Your task to perform on an android device: change text size in settings app Image 0: 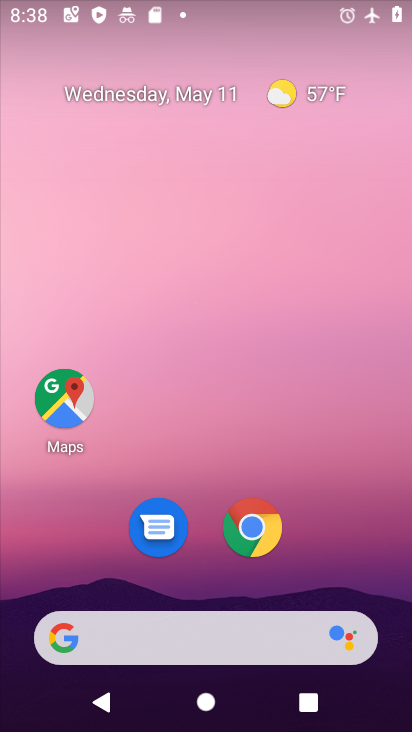
Step 0: drag from (348, 587) to (324, 25)
Your task to perform on an android device: change text size in settings app Image 1: 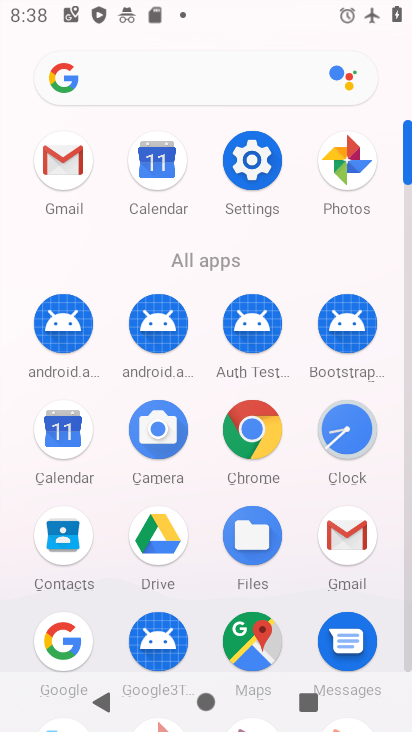
Step 1: click (260, 163)
Your task to perform on an android device: change text size in settings app Image 2: 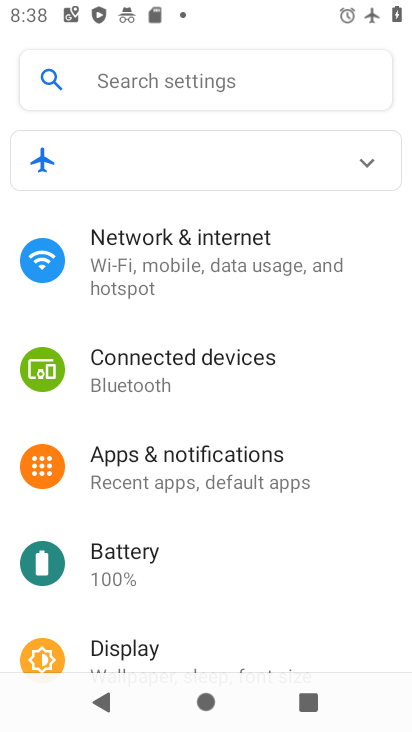
Step 2: drag from (248, 564) to (259, 219)
Your task to perform on an android device: change text size in settings app Image 3: 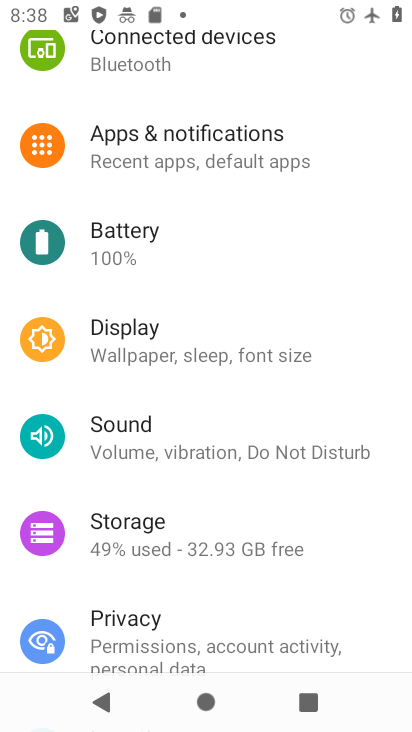
Step 3: click (122, 350)
Your task to perform on an android device: change text size in settings app Image 4: 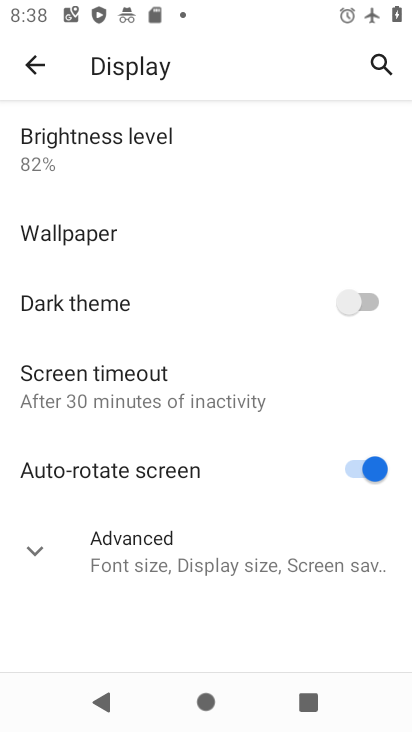
Step 4: click (22, 551)
Your task to perform on an android device: change text size in settings app Image 5: 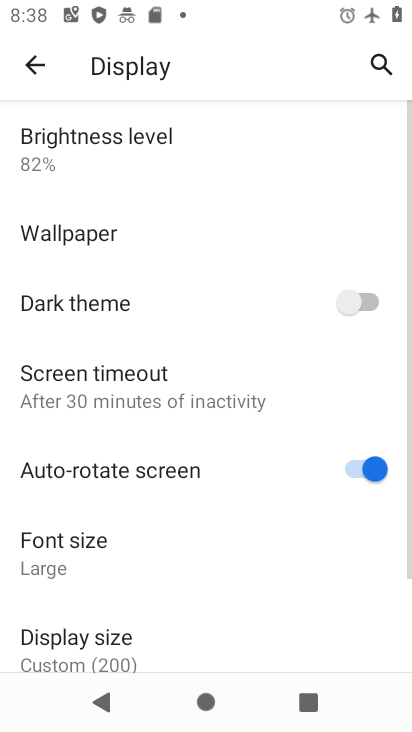
Step 5: click (59, 572)
Your task to perform on an android device: change text size in settings app Image 6: 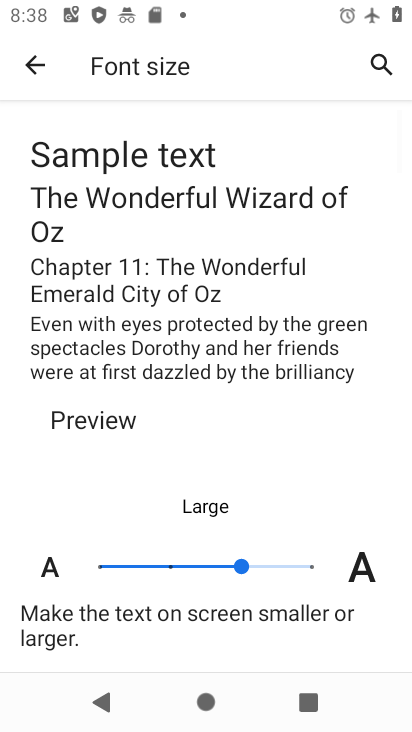
Step 6: click (166, 574)
Your task to perform on an android device: change text size in settings app Image 7: 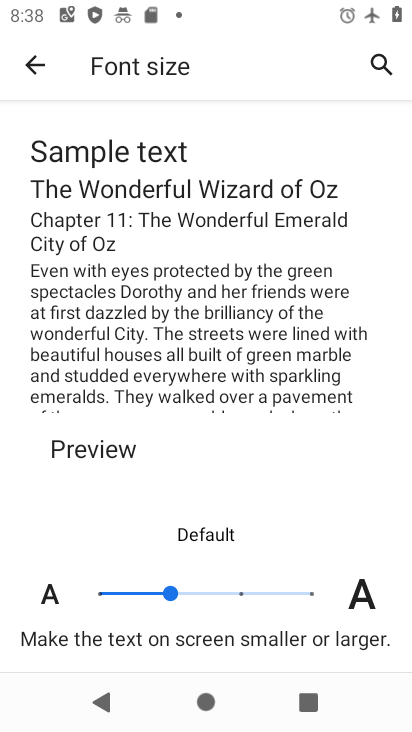
Step 7: task complete